Your task to perform on an android device: Open calendar and show me the fourth week of next month Image 0: 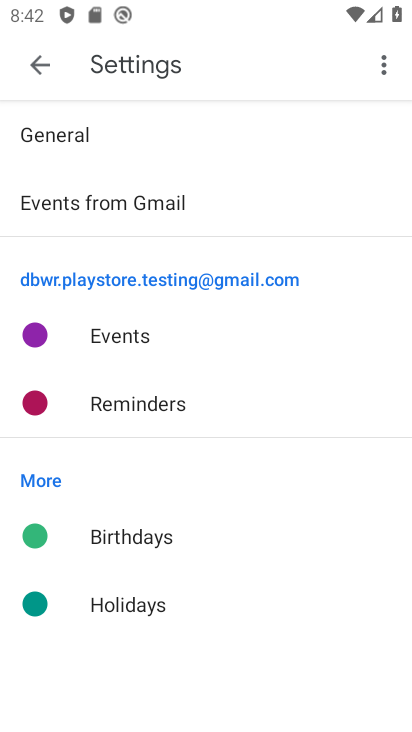
Step 0: press home button
Your task to perform on an android device: Open calendar and show me the fourth week of next month Image 1: 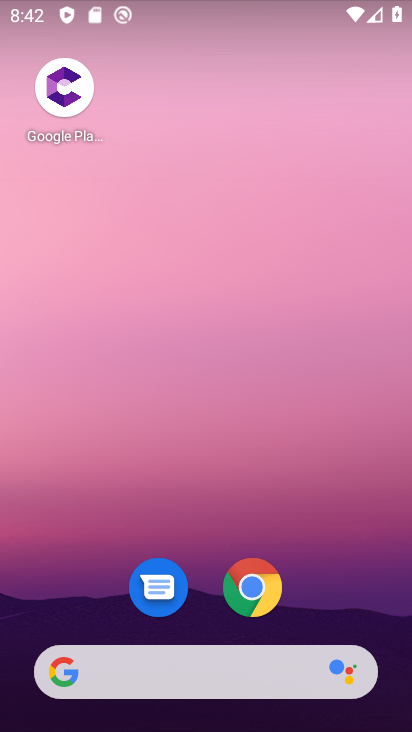
Step 1: drag from (386, 603) to (392, 9)
Your task to perform on an android device: Open calendar and show me the fourth week of next month Image 2: 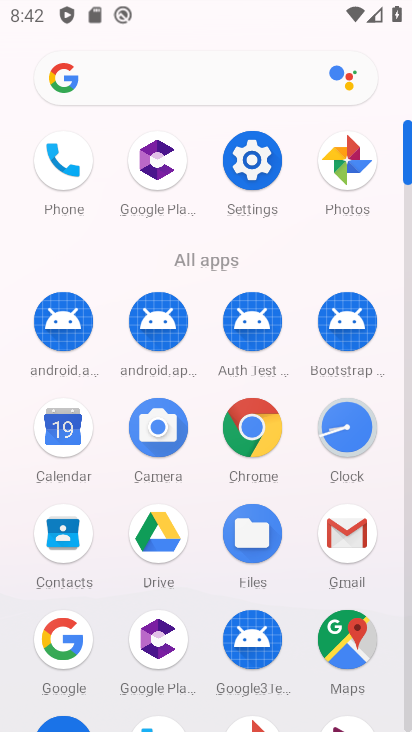
Step 2: click (61, 441)
Your task to perform on an android device: Open calendar and show me the fourth week of next month Image 3: 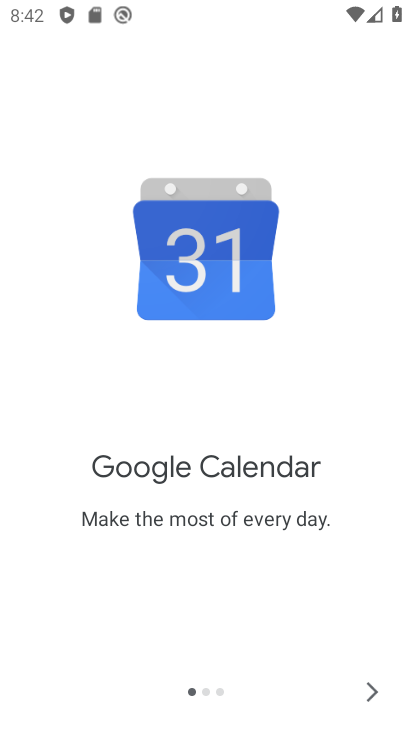
Step 3: click (369, 692)
Your task to perform on an android device: Open calendar and show me the fourth week of next month Image 4: 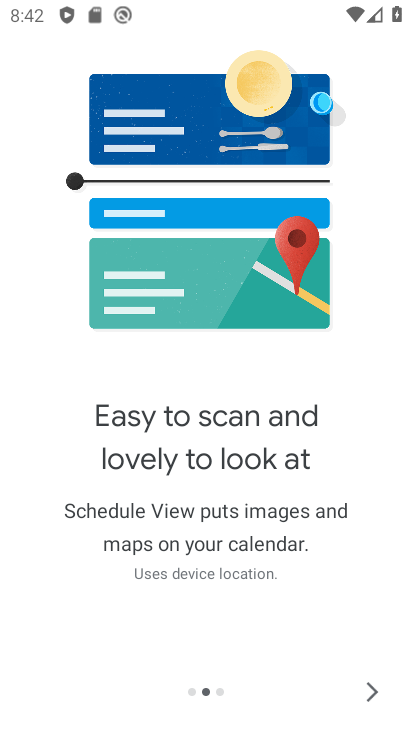
Step 4: click (373, 693)
Your task to perform on an android device: Open calendar and show me the fourth week of next month Image 5: 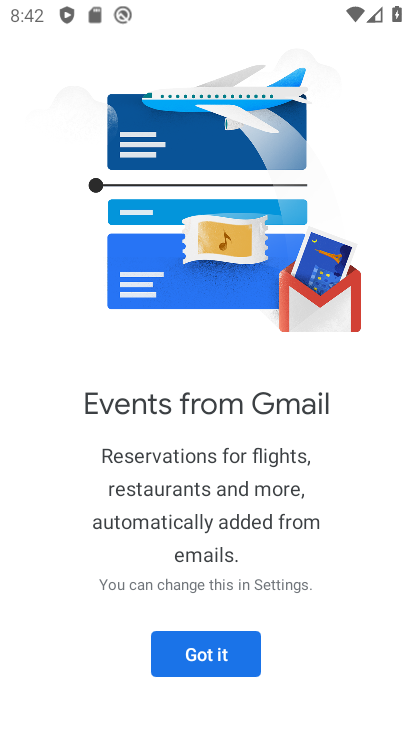
Step 5: click (195, 656)
Your task to perform on an android device: Open calendar and show me the fourth week of next month Image 6: 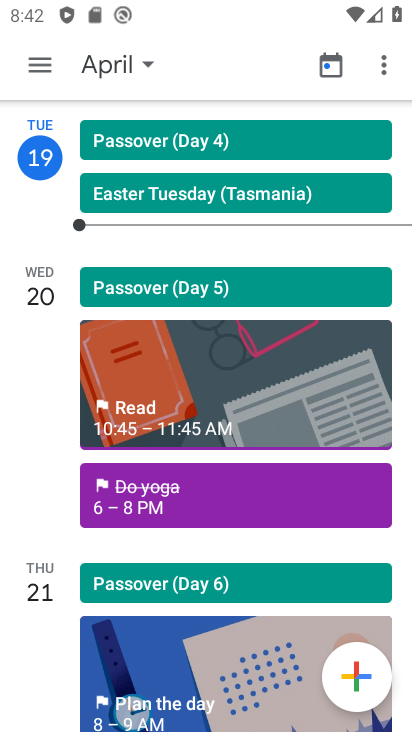
Step 6: click (150, 64)
Your task to perform on an android device: Open calendar and show me the fourth week of next month Image 7: 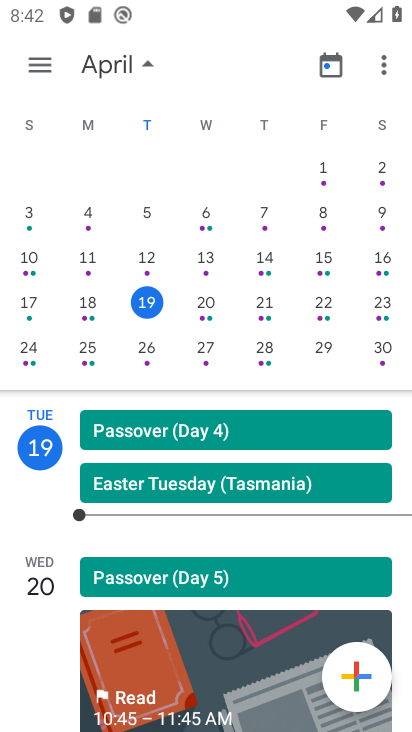
Step 7: drag from (320, 260) to (7, 242)
Your task to perform on an android device: Open calendar and show me the fourth week of next month Image 8: 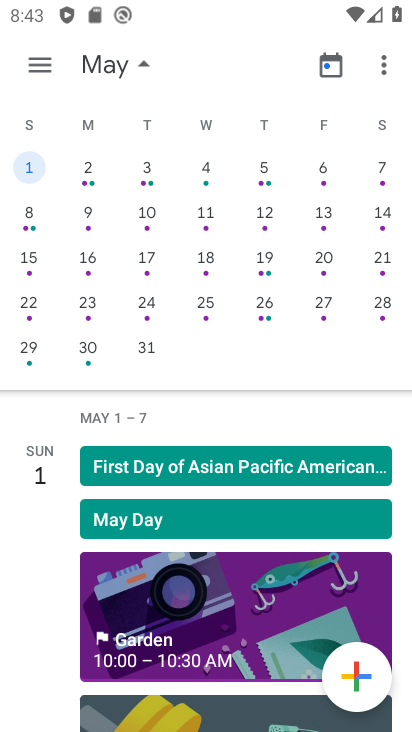
Step 8: click (36, 69)
Your task to perform on an android device: Open calendar and show me the fourth week of next month Image 9: 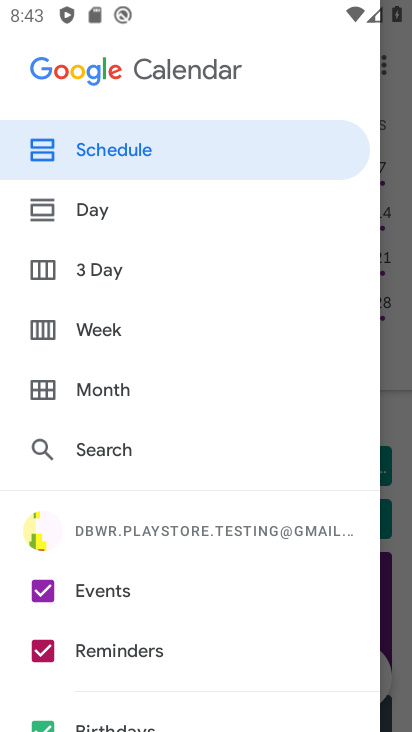
Step 9: click (84, 335)
Your task to perform on an android device: Open calendar and show me the fourth week of next month Image 10: 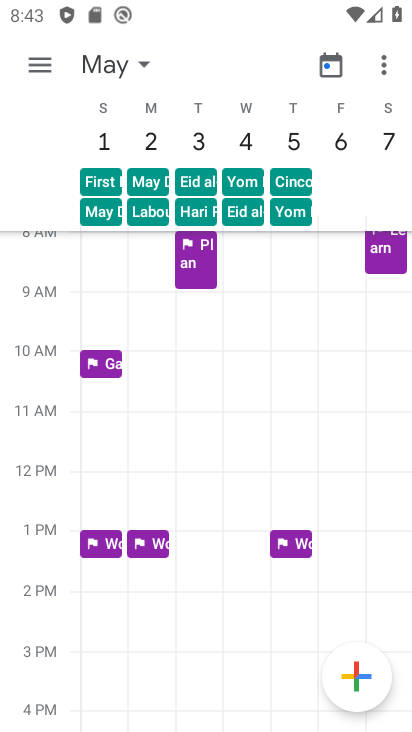
Step 10: task complete